Your task to perform on an android device: Go to privacy settings Image 0: 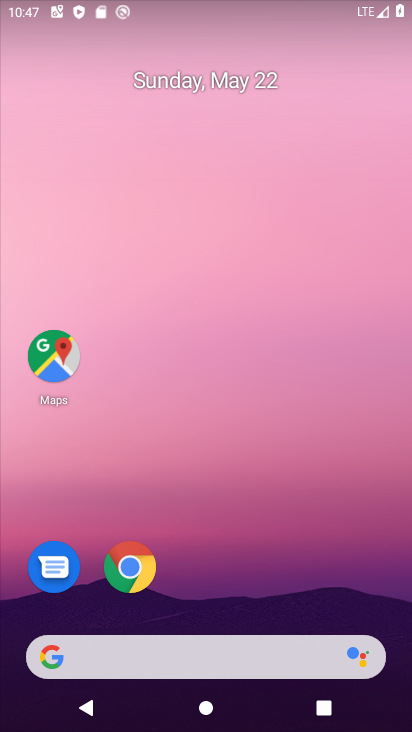
Step 0: drag from (324, 555) to (236, 13)
Your task to perform on an android device: Go to privacy settings Image 1: 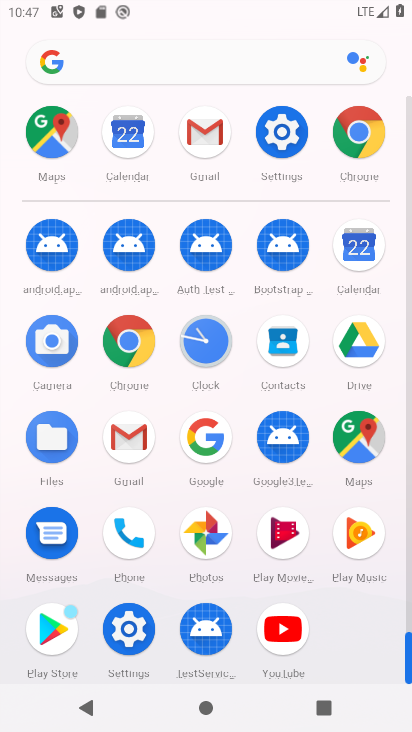
Step 1: click (125, 337)
Your task to perform on an android device: Go to privacy settings Image 2: 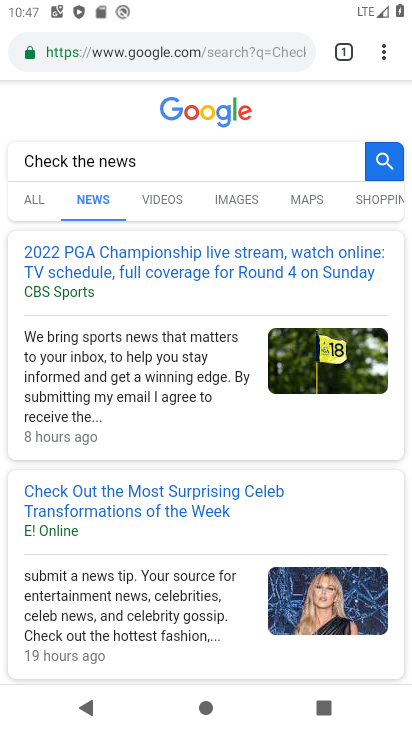
Step 2: drag from (380, 44) to (220, 579)
Your task to perform on an android device: Go to privacy settings Image 3: 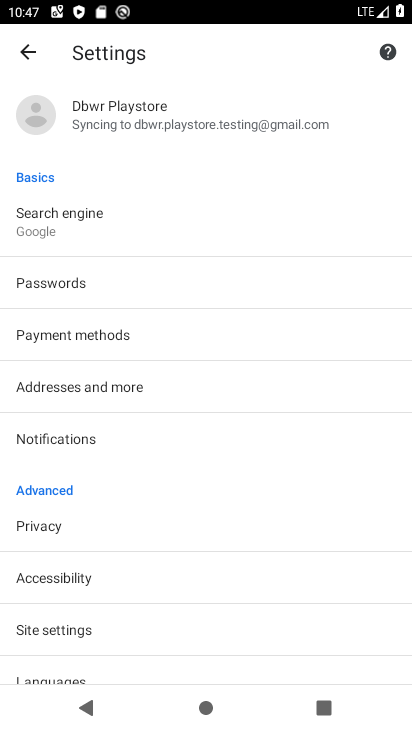
Step 3: click (42, 525)
Your task to perform on an android device: Go to privacy settings Image 4: 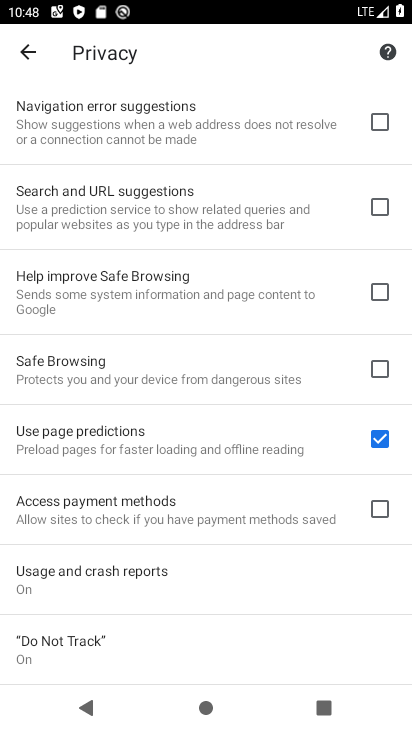
Step 4: task complete